Your task to perform on an android device: Open Google Chrome Image 0: 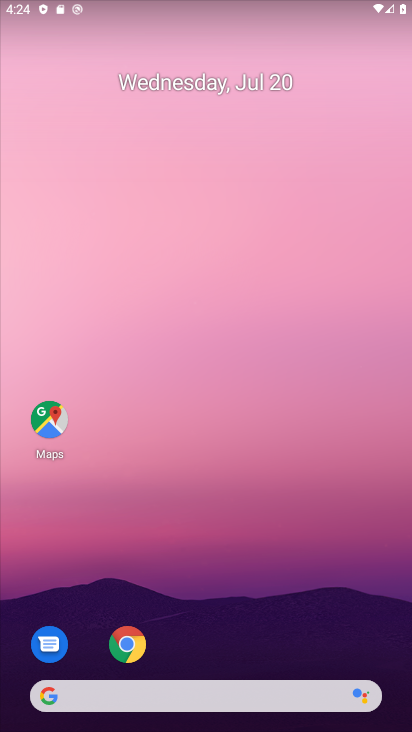
Step 0: click (125, 648)
Your task to perform on an android device: Open Google Chrome Image 1: 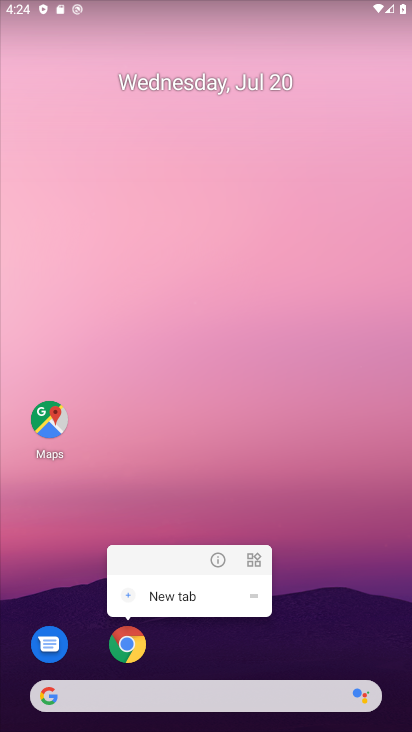
Step 1: click (141, 650)
Your task to perform on an android device: Open Google Chrome Image 2: 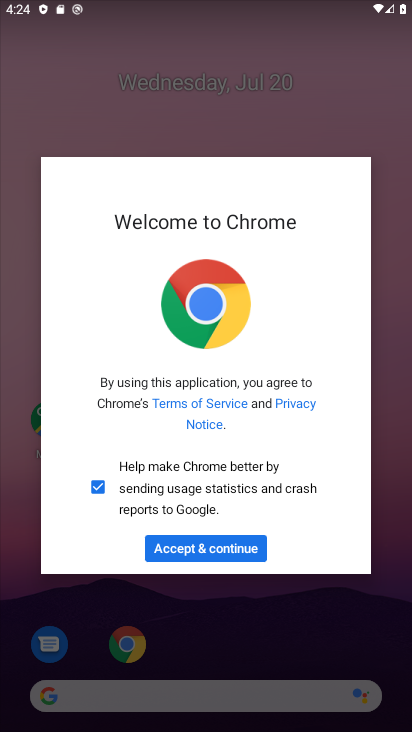
Step 2: click (201, 550)
Your task to perform on an android device: Open Google Chrome Image 3: 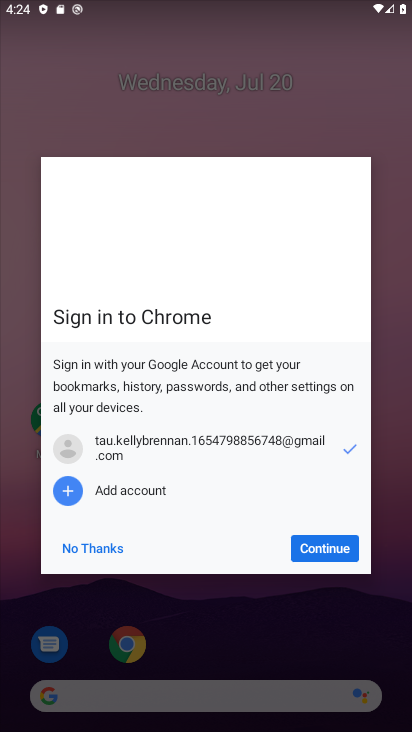
Step 3: click (321, 549)
Your task to perform on an android device: Open Google Chrome Image 4: 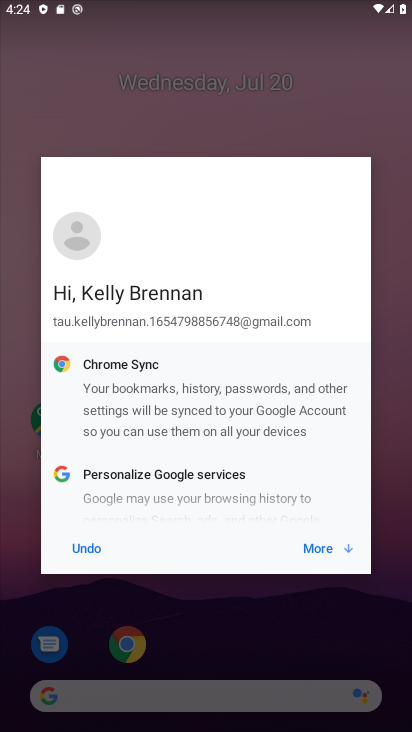
Step 4: click (321, 549)
Your task to perform on an android device: Open Google Chrome Image 5: 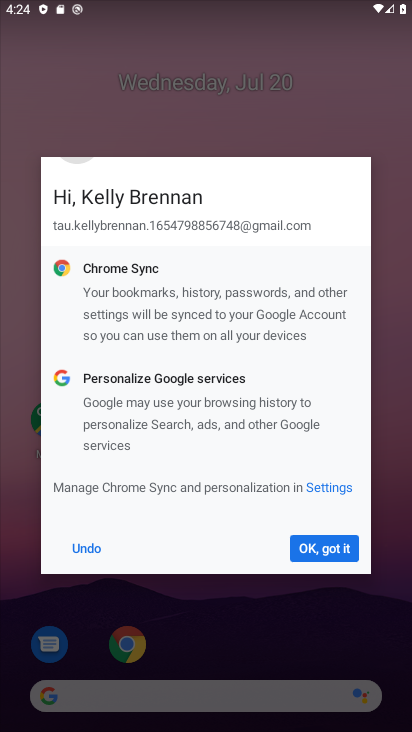
Step 5: click (321, 549)
Your task to perform on an android device: Open Google Chrome Image 6: 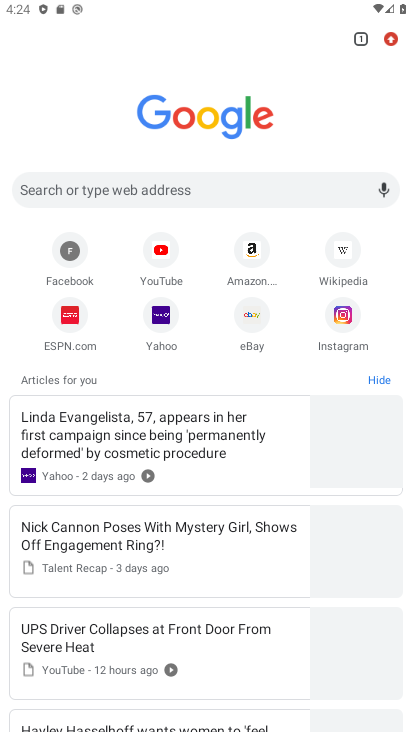
Step 6: task complete